Your task to perform on an android device: check storage Image 0: 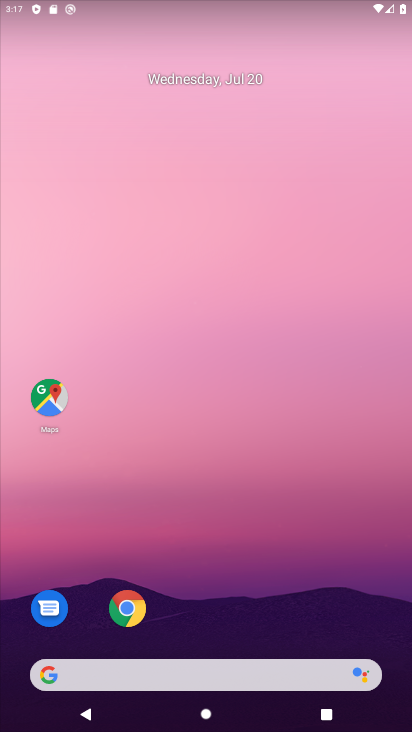
Step 0: drag from (244, 644) to (208, 159)
Your task to perform on an android device: check storage Image 1: 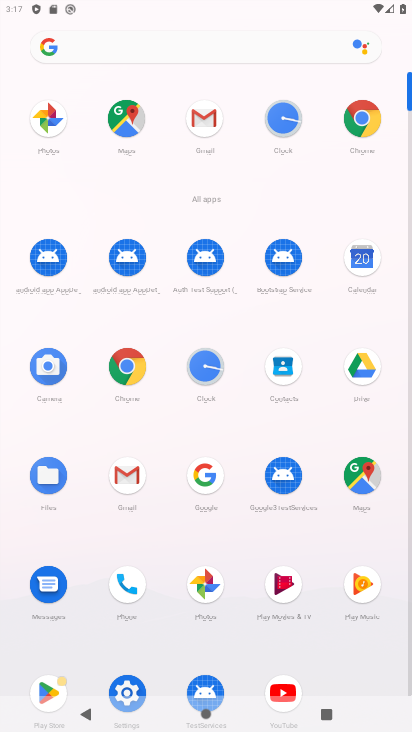
Step 1: click (122, 677)
Your task to perform on an android device: check storage Image 2: 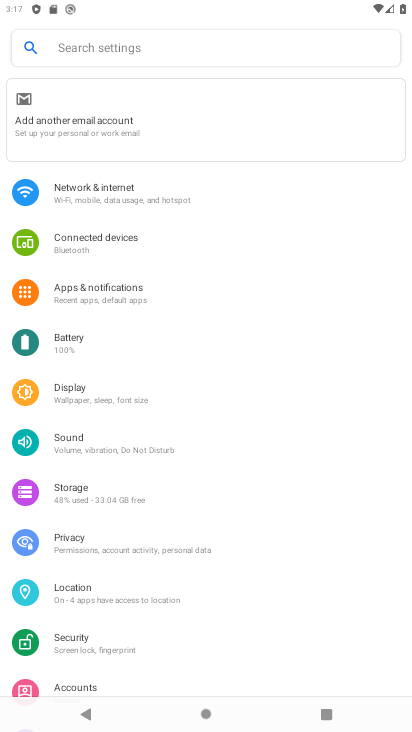
Step 2: click (87, 492)
Your task to perform on an android device: check storage Image 3: 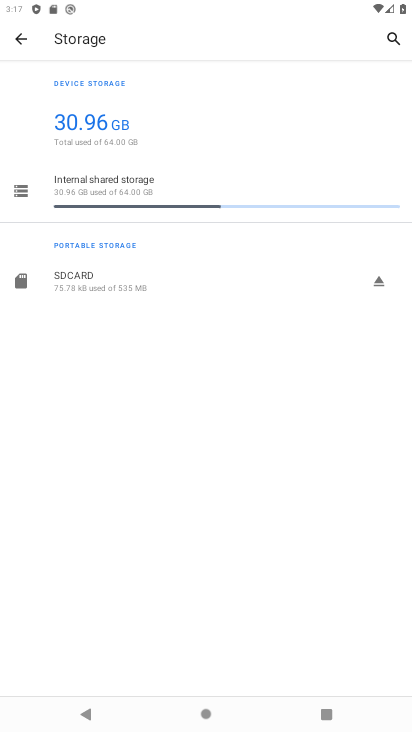
Step 3: task complete